Your task to perform on an android device: Check the news Image 0: 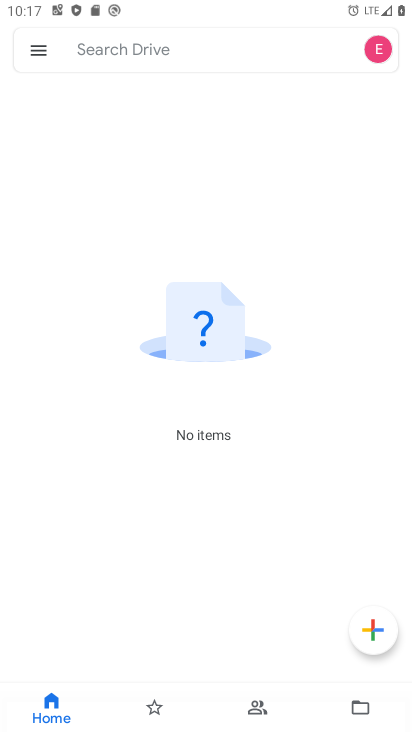
Step 0: press home button
Your task to perform on an android device: Check the news Image 1: 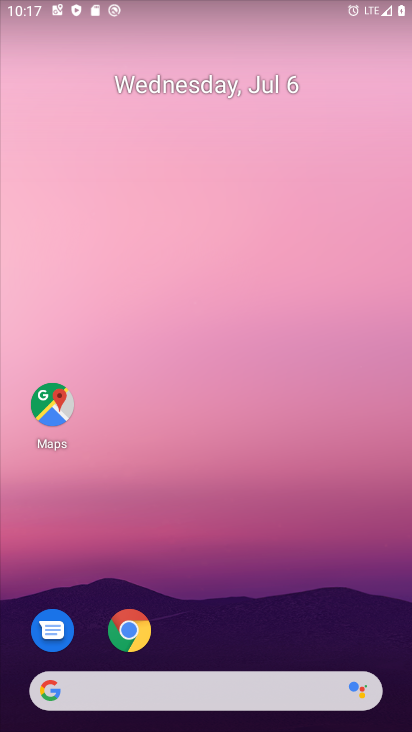
Step 1: task complete